Your task to perform on an android device: Open CNN.com Image 0: 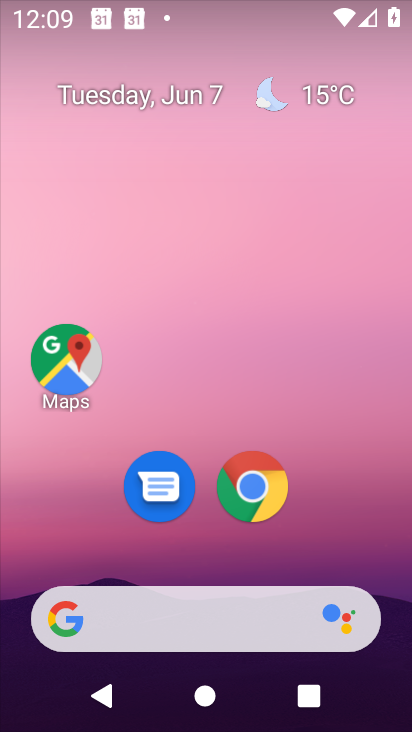
Step 0: click (260, 493)
Your task to perform on an android device: Open CNN.com Image 1: 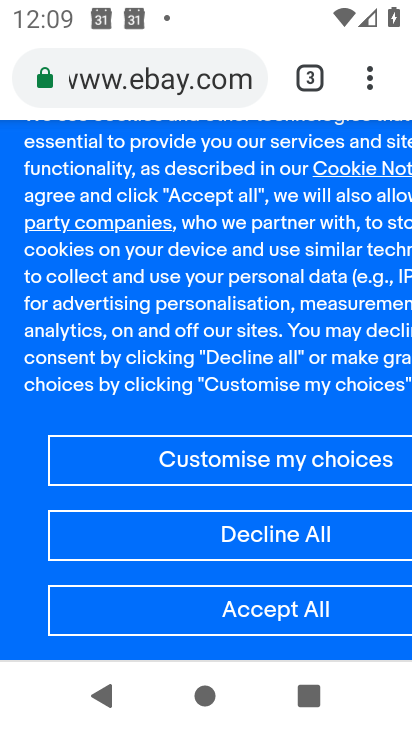
Step 1: click (311, 72)
Your task to perform on an android device: Open CNN.com Image 2: 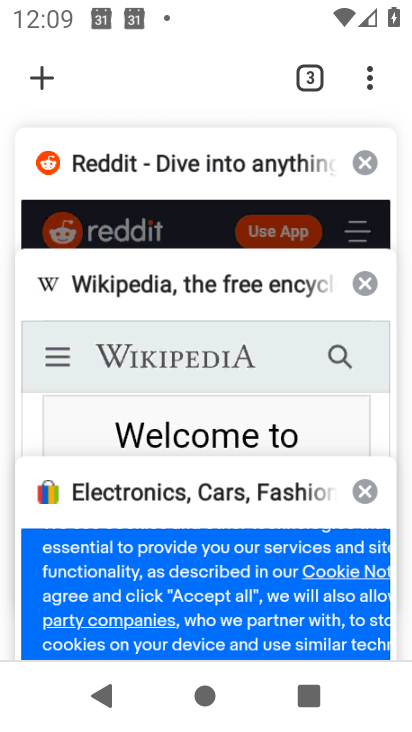
Step 2: click (26, 77)
Your task to perform on an android device: Open CNN.com Image 3: 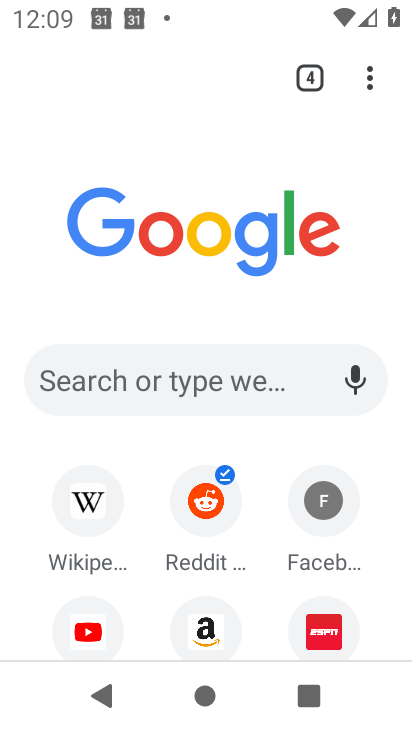
Step 3: click (180, 391)
Your task to perform on an android device: Open CNN.com Image 4: 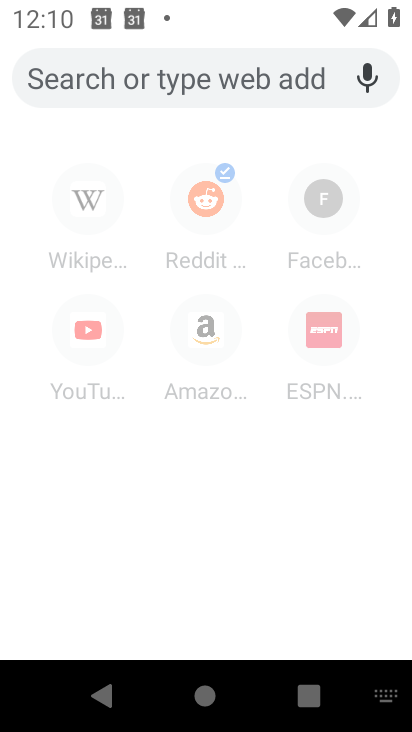
Step 4: type "CNN.com"
Your task to perform on an android device: Open CNN.com Image 5: 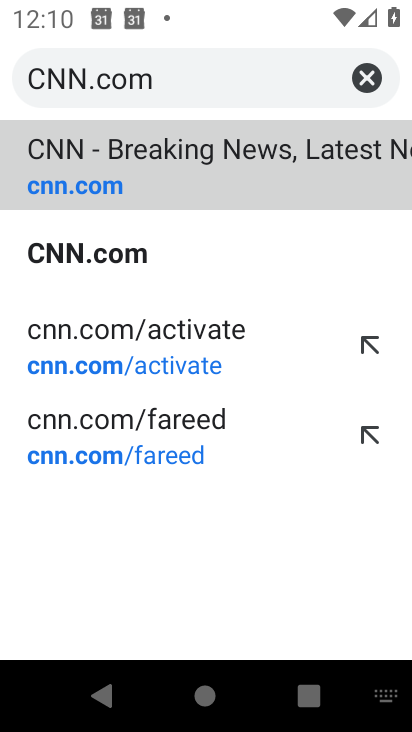
Step 5: click (248, 174)
Your task to perform on an android device: Open CNN.com Image 6: 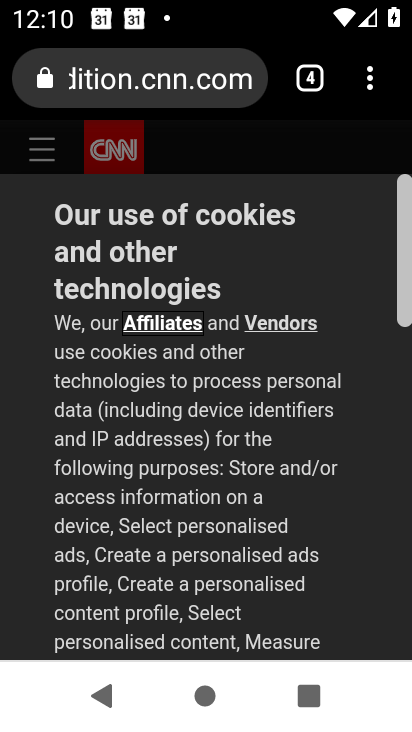
Step 6: task complete